Your task to perform on an android device: Open Amazon Image 0: 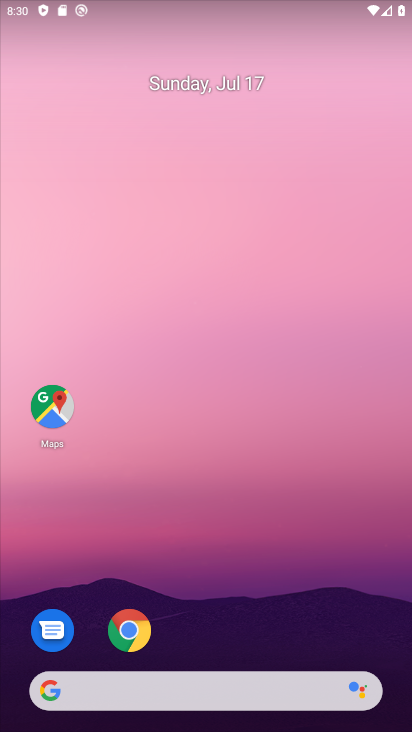
Step 0: click (137, 644)
Your task to perform on an android device: Open Amazon Image 1: 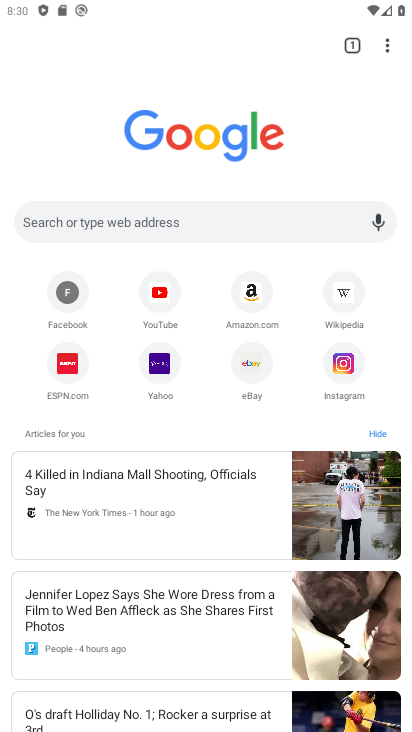
Step 1: click (246, 307)
Your task to perform on an android device: Open Amazon Image 2: 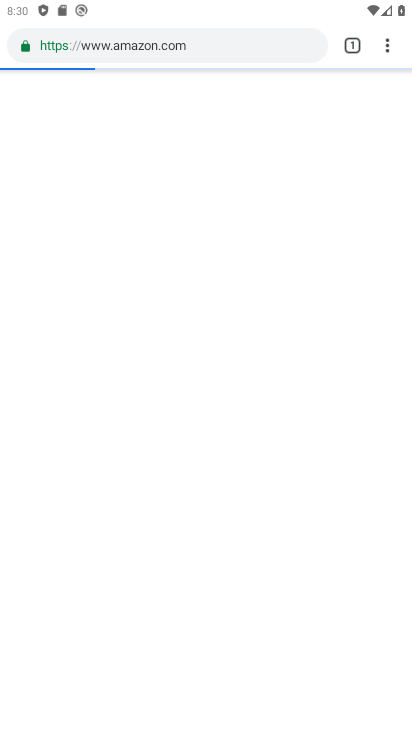
Step 2: task complete